Your task to perform on an android device: Search for the Best selling coffee table on Ikea Image 0: 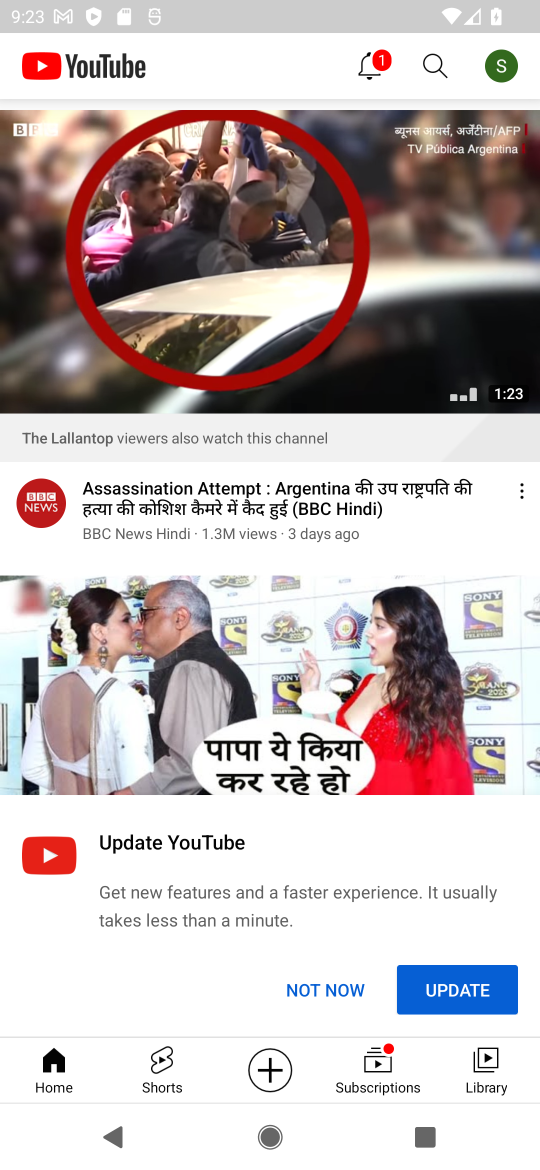
Step 0: press home button
Your task to perform on an android device: Search for the Best selling coffee table on Ikea Image 1: 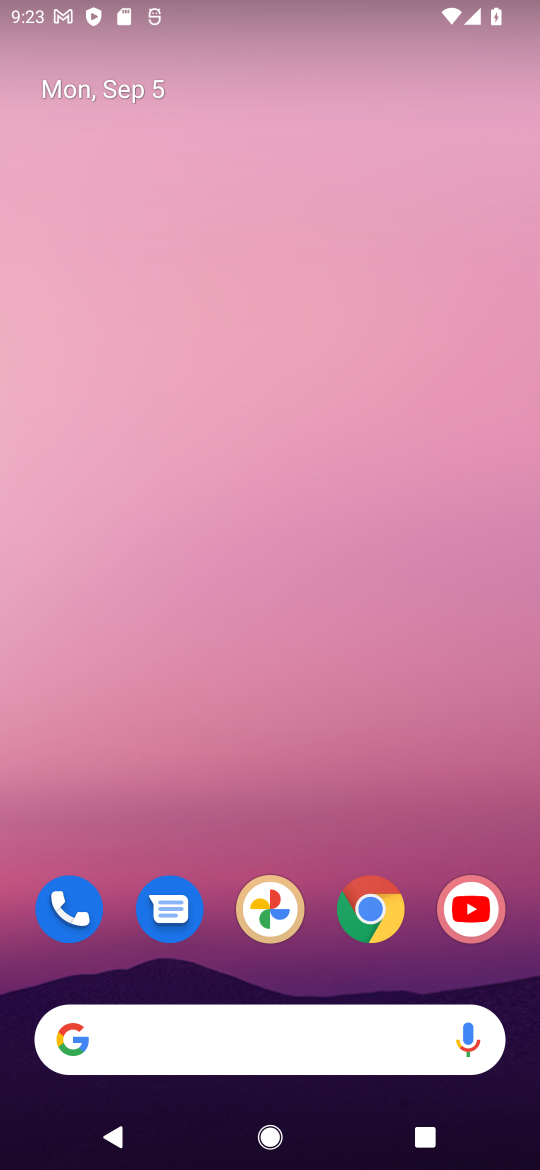
Step 1: click (376, 920)
Your task to perform on an android device: Search for the Best selling coffee table on Ikea Image 2: 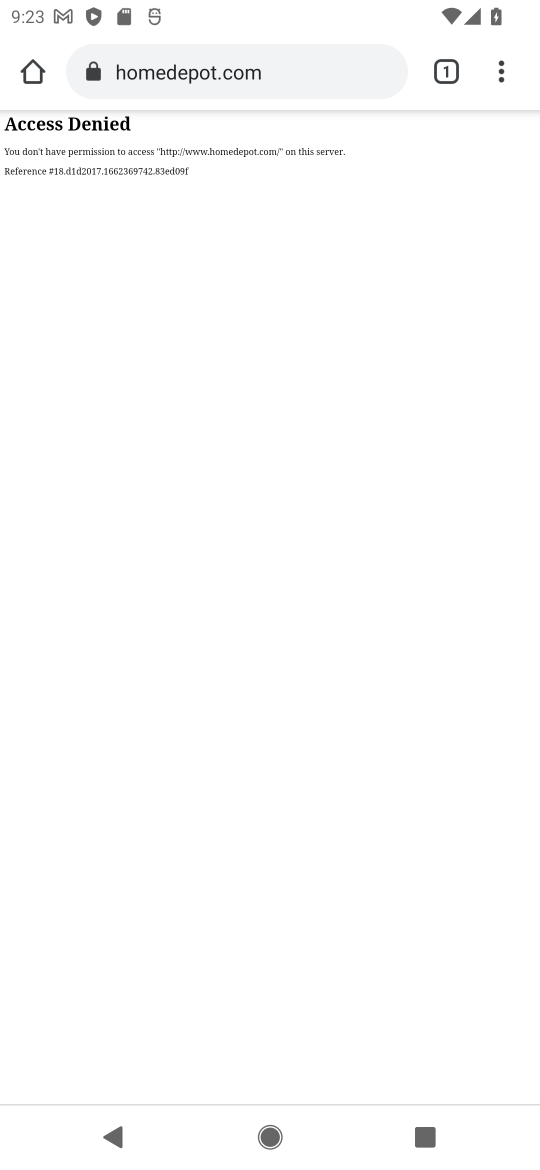
Step 2: click (293, 71)
Your task to perform on an android device: Search for the Best selling coffee table on Ikea Image 3: 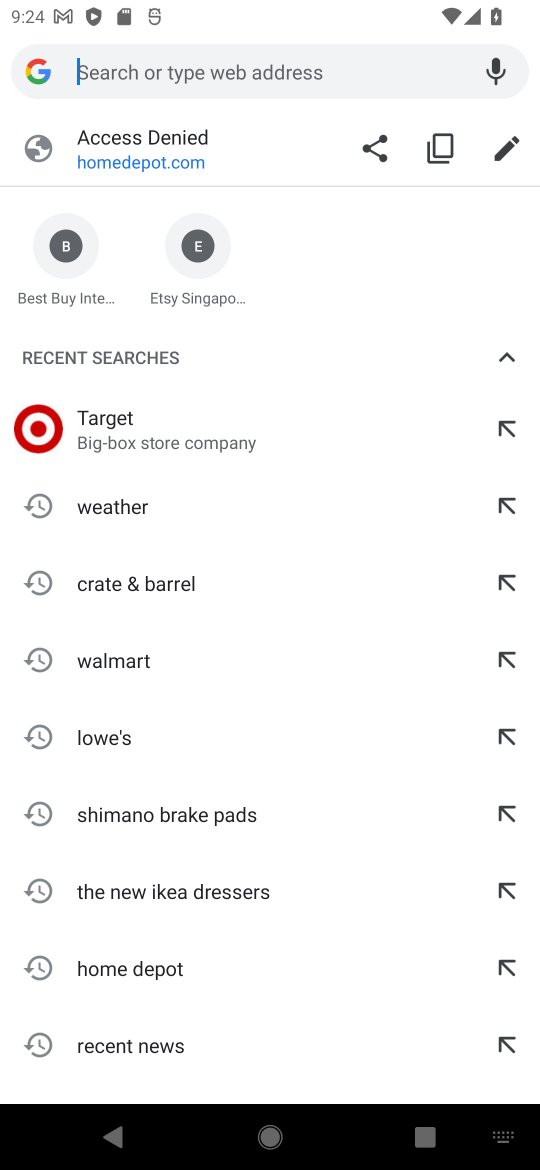
Step 3: type "ikea"
Your task to perform on an android device: Search for the Best selling coffee table on Ikea Image 4: 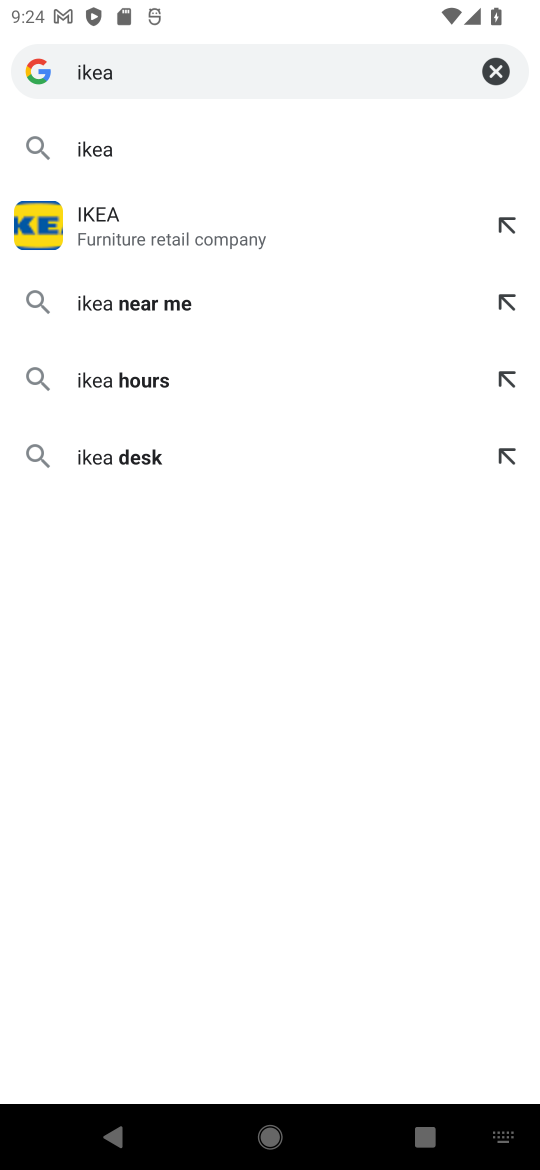
Step 4: click (241, 218)
Your task to perform on an android device: Search for the Best selling coffee table on Ikea Image 5: 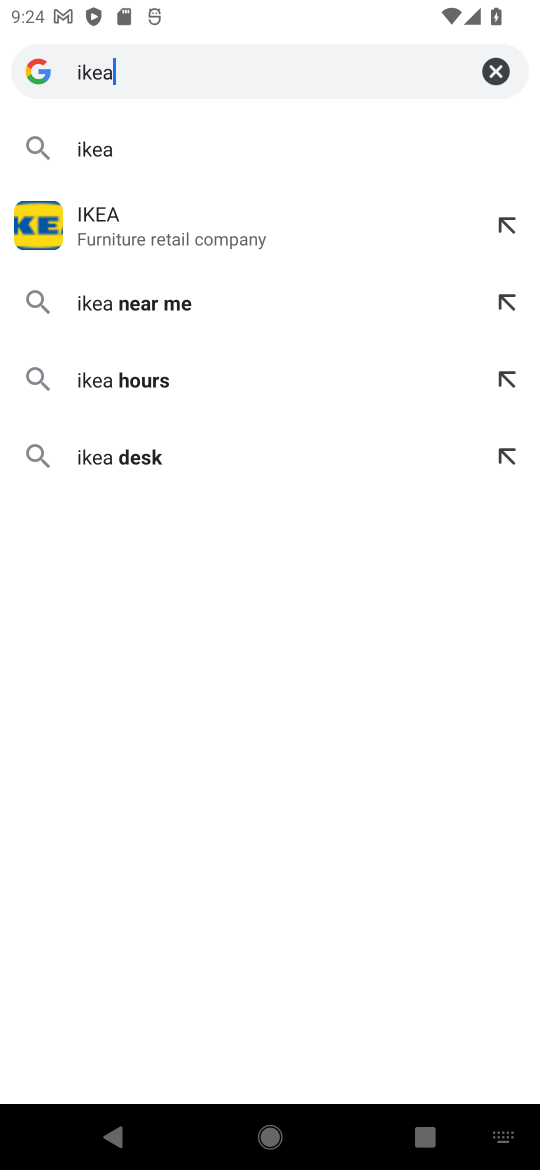
Step 5: click (184, 230)
Your task to perform on an android device: Search for the Best selling coffee table on Ikea Image 6: 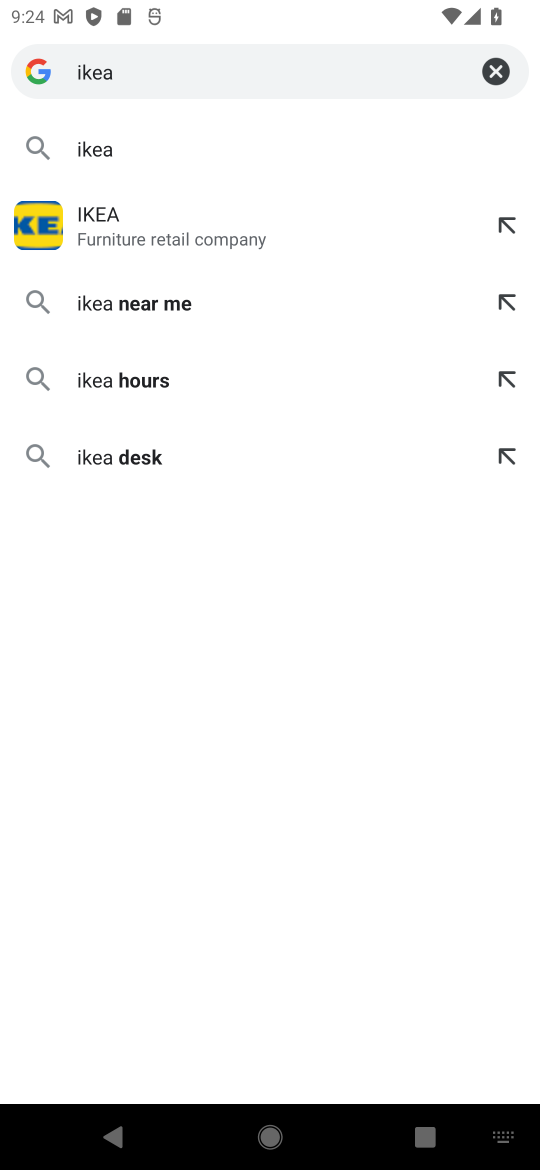
Step 6: click (204, 147)
Your task to perform on an android device: Search for the Best selling coffee table on Ikea Image 7: 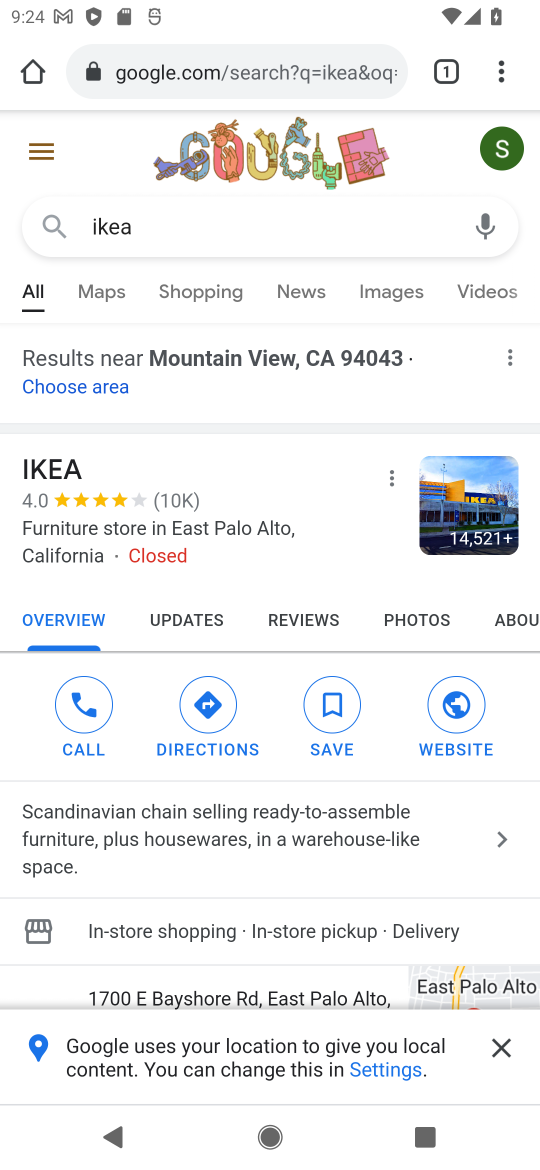
Step 7: drag from (209, 889) to (138, 455)
Your task to perform on an android device: Search for the Best selling coffee table on Ikea Image 8: 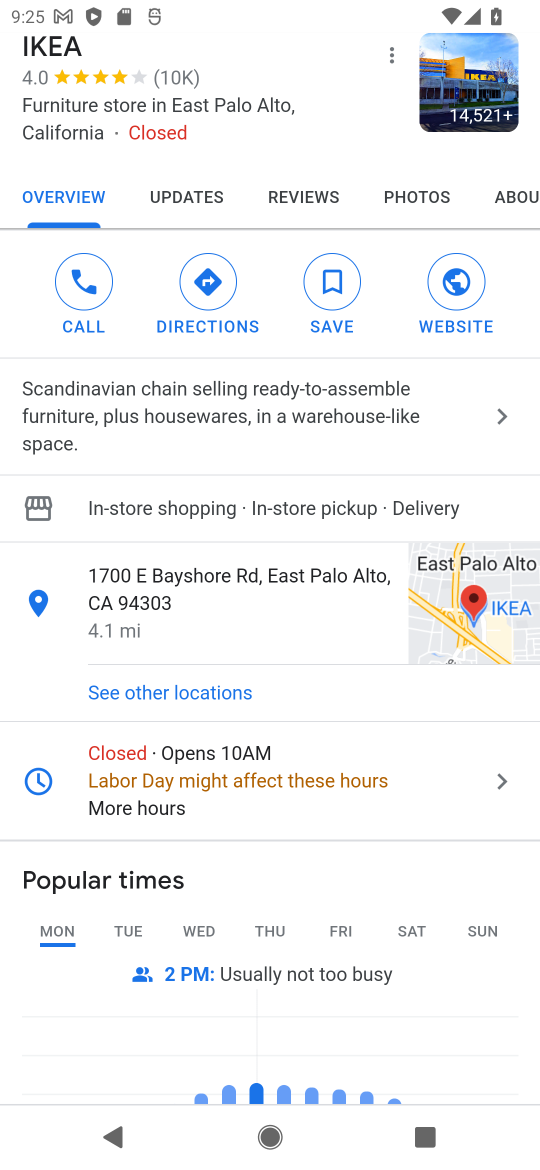
Step 8: drag from (217, 993) to (161, 313)
Your task to perform on an android device: Search for the Best selling coffee table on Ikea Image 9: 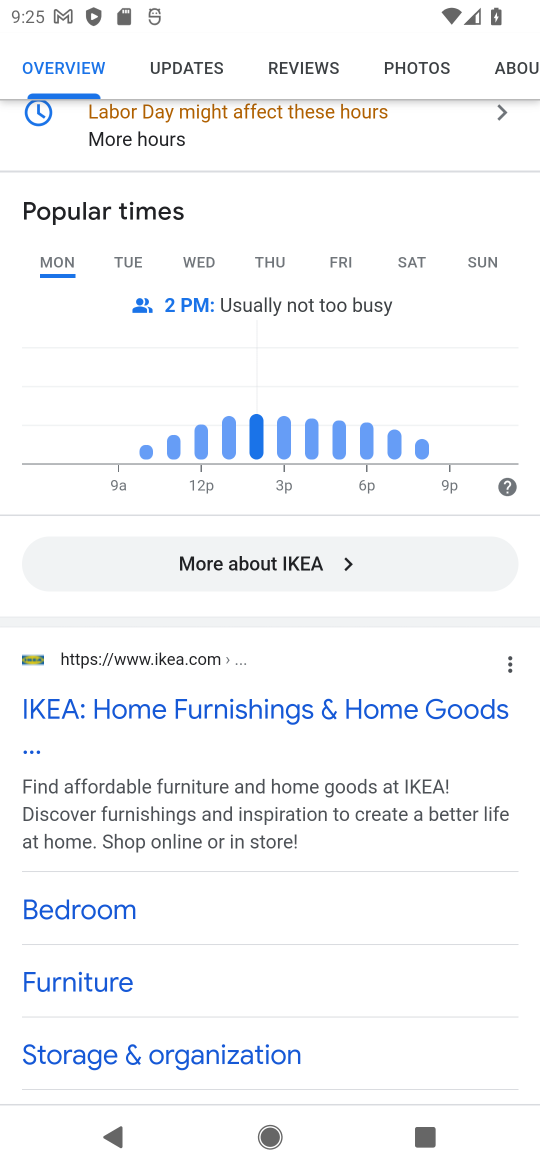
Step 9: click (262, 714)
Your task to perform on an android device: Search for the Best selling coffee table on Ikea Image 10: 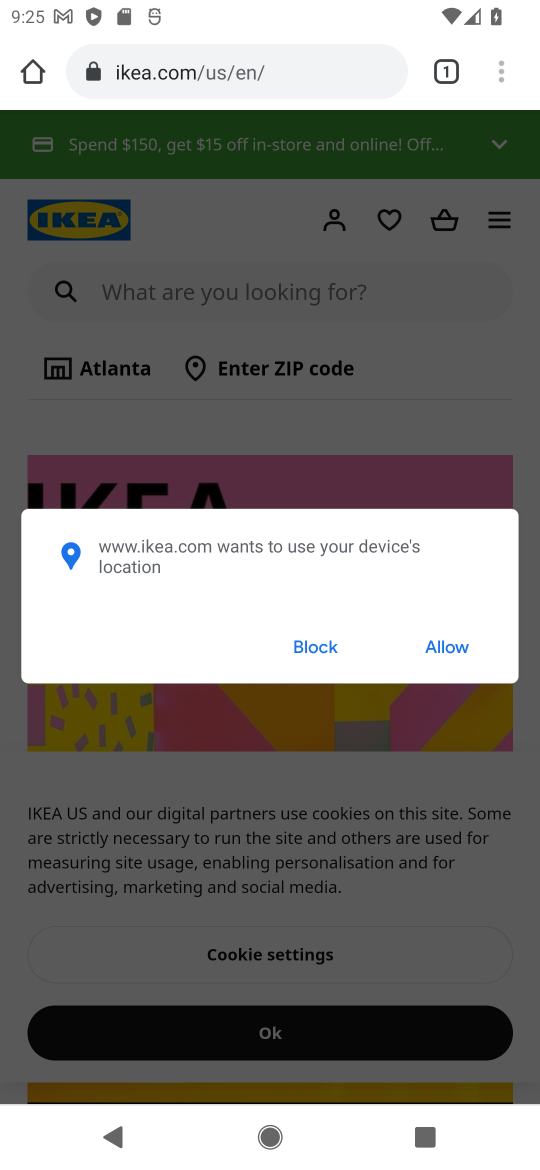
Step 10: click (315, 646)
Your task to perform on an android device: Search for the Best selling coffee table on Ikea Image 11: 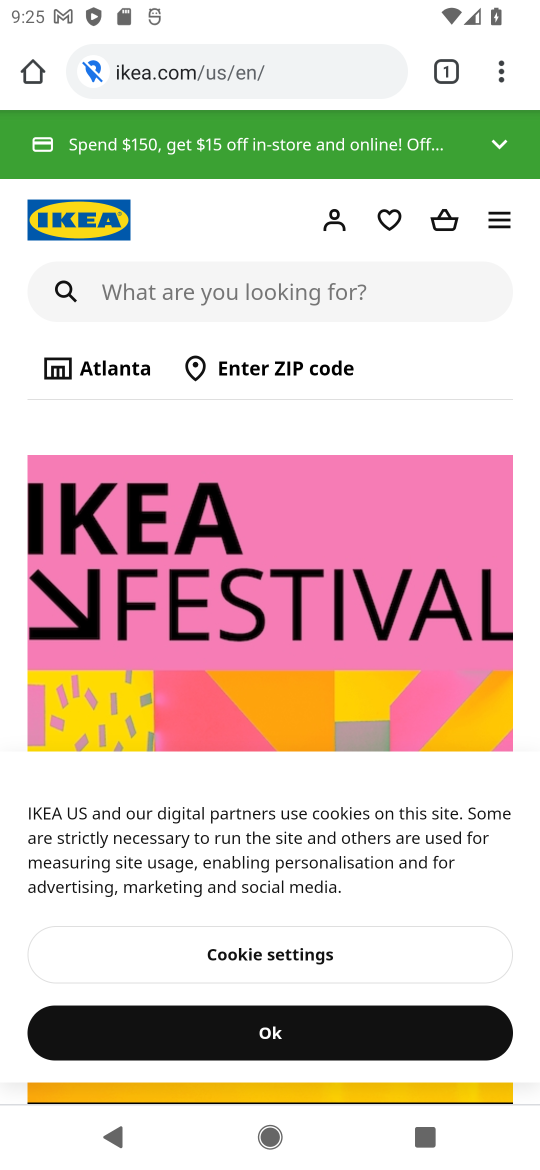
Step 11: click (274, 299)
Your task to perform on an android device: Search for the Best selling coffee table on Ikea Image 12: 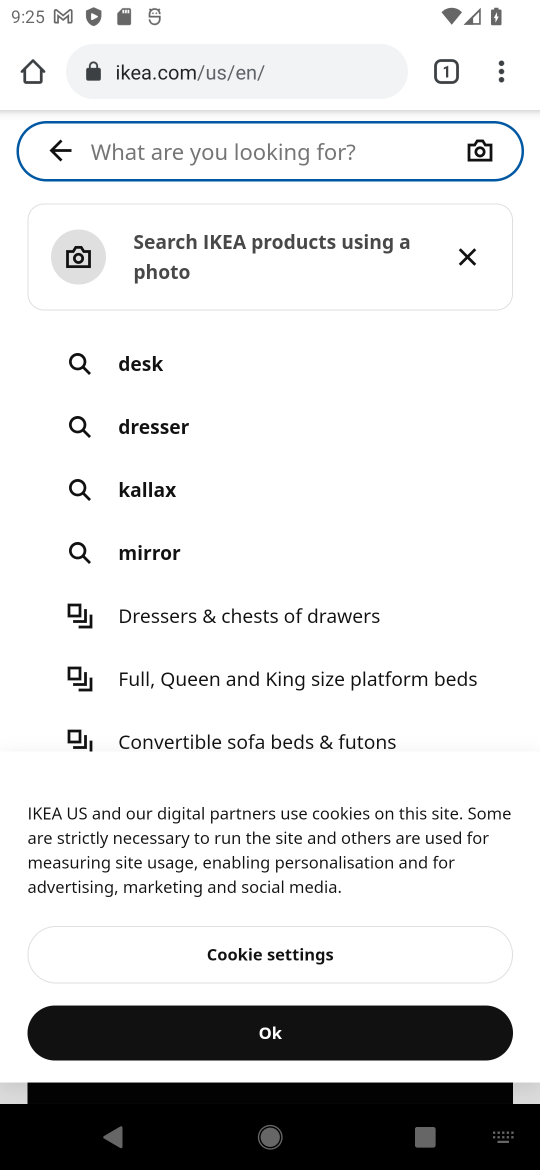
Step 12: type "best selling coffee table"
Your task to perform on an android device: Search for the Best selling coffee table on Ikea Image 13: 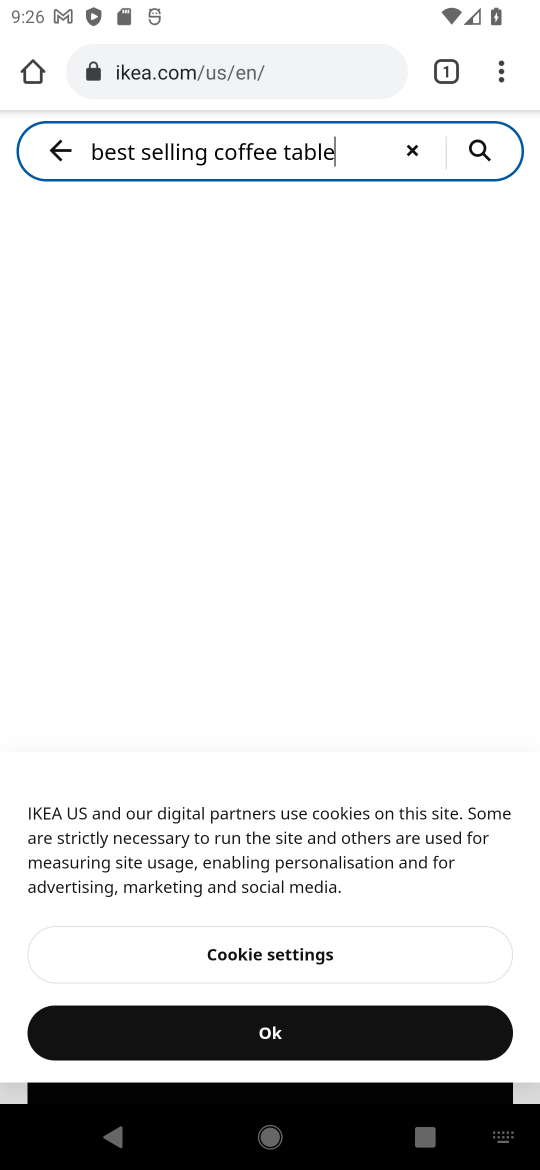
Step 13: click (488, 153)
Your task to perform on an android device: Search for the Best selling coffee table on Ikea Image 14: 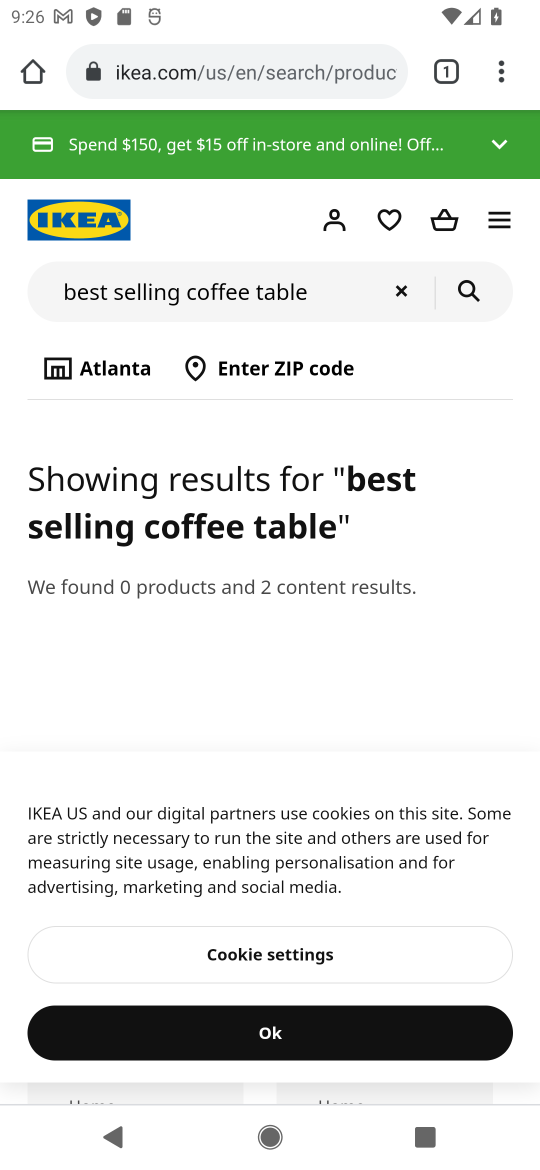
Step 14: task complete